Your task to perform on an android device: empty trash in the gmail app Image 0: 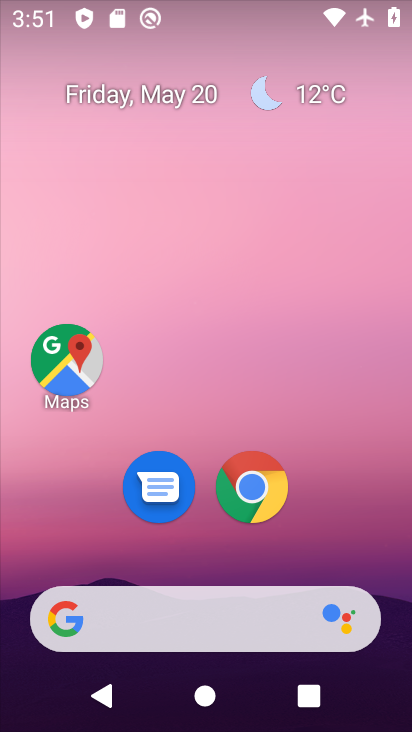
Step 0: drag from (301, 540) to (252, 29)
Your task to perform on an android device: empty trash in the gmail app Image 1: 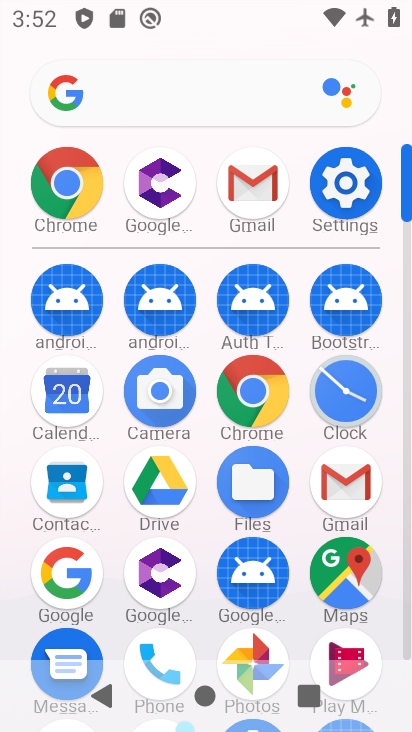
Step 1: click (340, 499)
Your task to perform on an android device: empty trash in the gmail app Image 2: 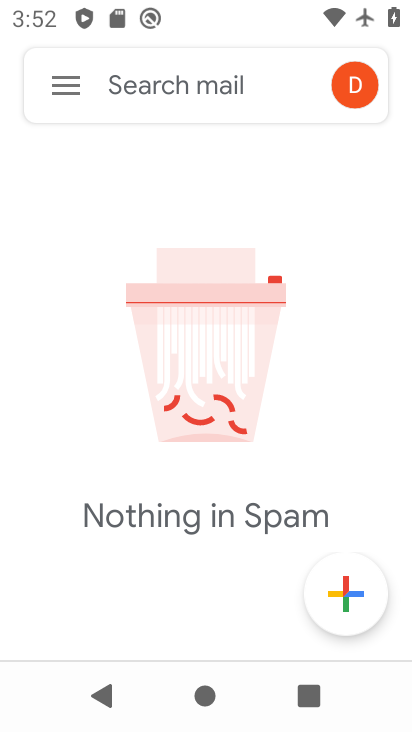
Step 2: click (62, 85)
Your task to perform on an android device: empty trash in the gmail app Image 3: 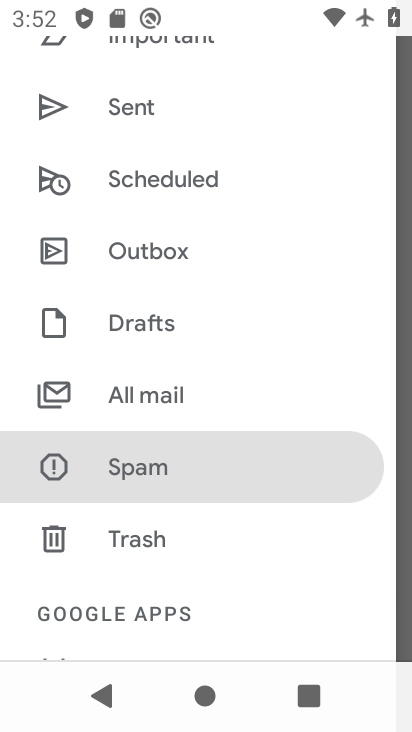
Step 3: click (130, 554)
Your task to perform on an android device: empty trash in the gmail app Image 4: 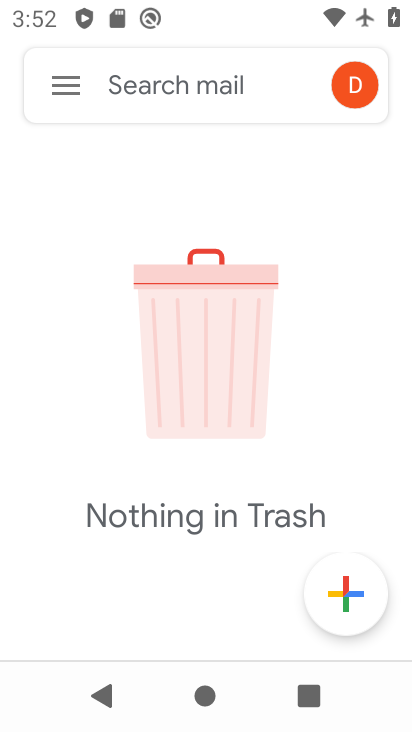
Step 4: task complete